Your task to perform on an android device: Go to calendar. Show me events next week Image 0: 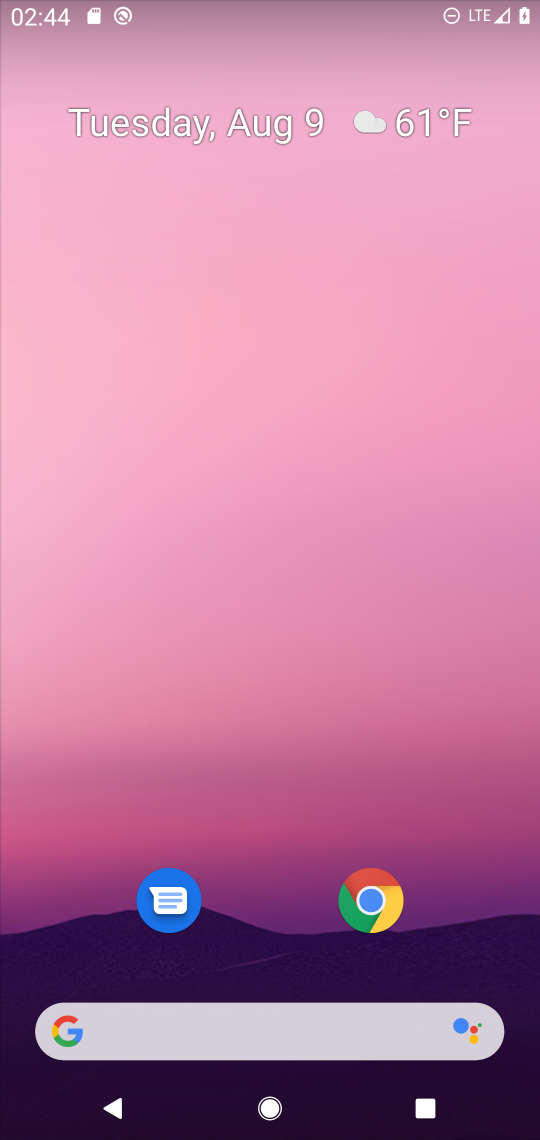
Step 0: drag from (278, 870) to (380, 150)
Your task to perform on an android device: Go to calendar. Show me events next week Image 1: 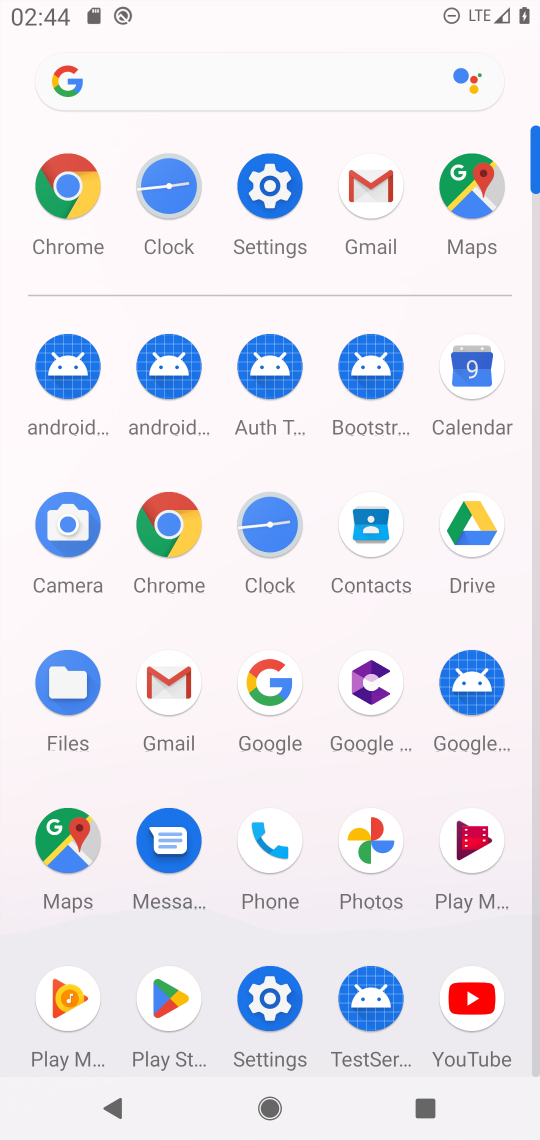
Step 1: click (474, 372)
Your task to perform on an android device: Go to calendar. Show me events next week Image 2: 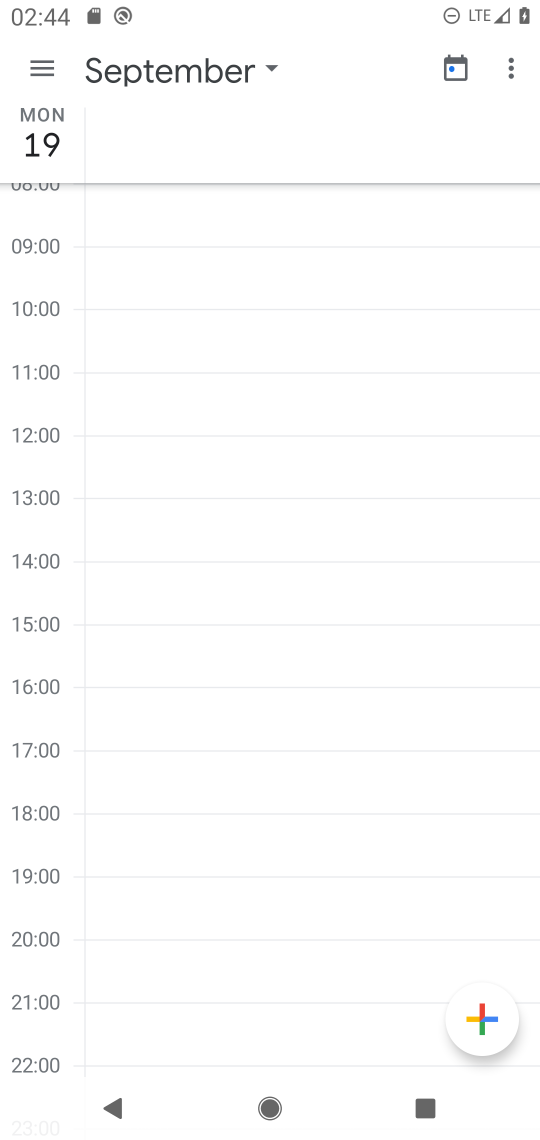
Step 2: click (34, 65)
Your task to perform on an android device: Go to calendar. Show me events next week Image 3: 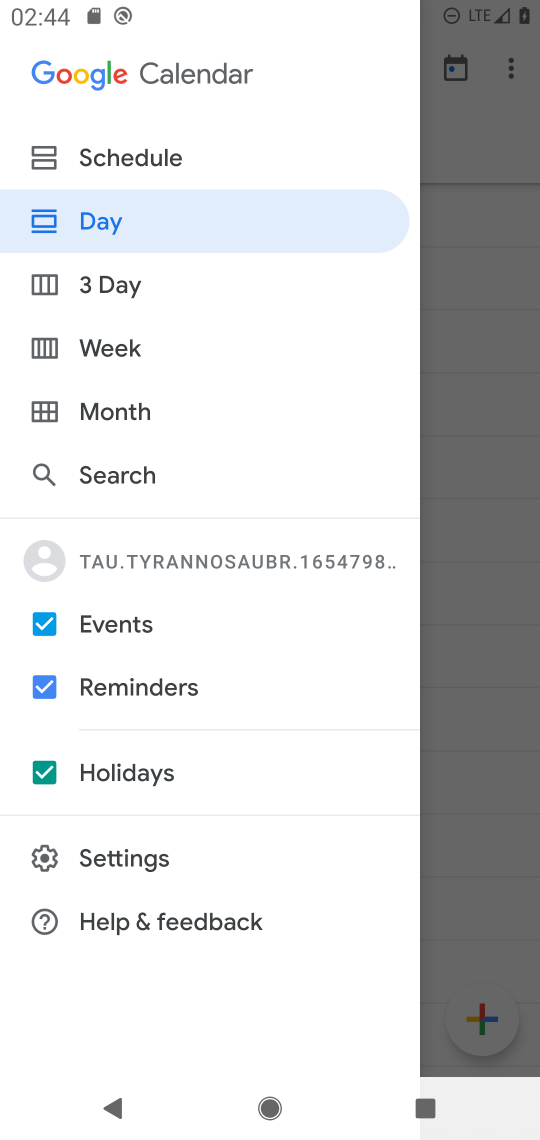
Step 3: click (152, 149)
Your task to perform on an android device: Go to calendar. Show me events next week Image 4: 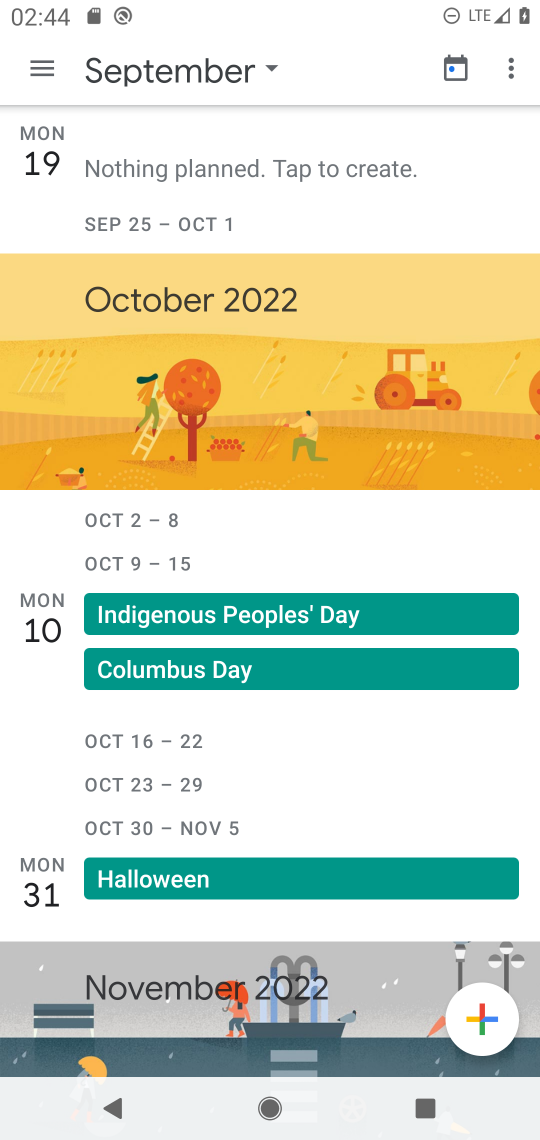
Step 4: task complete